Your task to perform on an android device: change the clock display to show seconds Image 0: 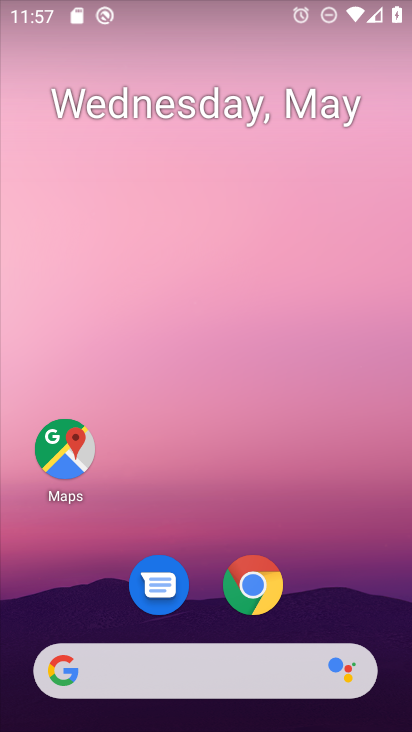
Step 0: drag from (216, 495) to (198, 23)
Your task to perform on an android device: change the clock display to show seconds Image 1: 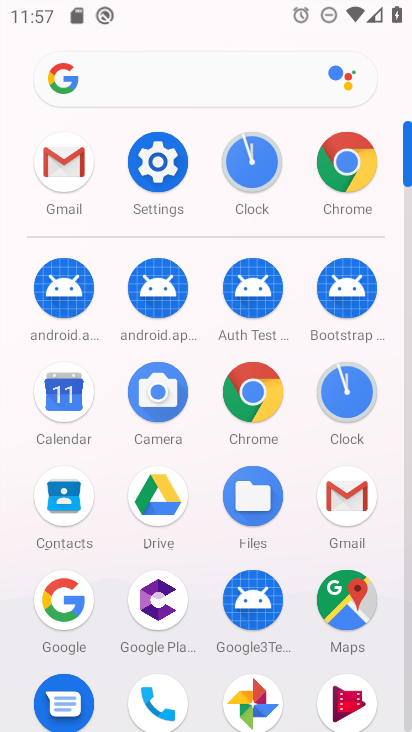
Step 1: click (253, 173)
Your task to perform on an android device: change the clock display to show seconds Image 2: 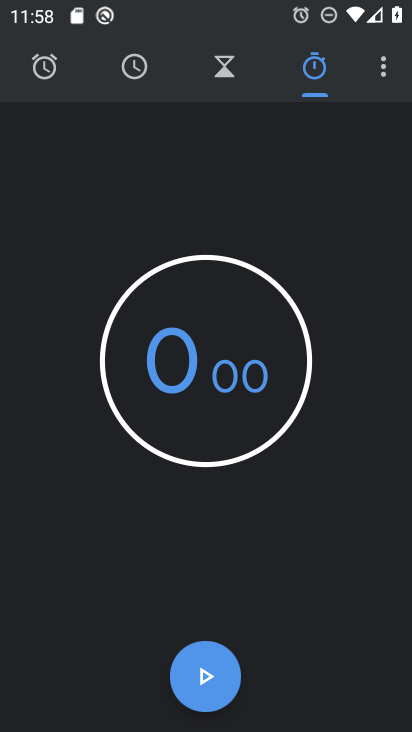
Step 2: click (382, 72)
Your task to perform on an android device: change the clock display to show seconds Image 3: 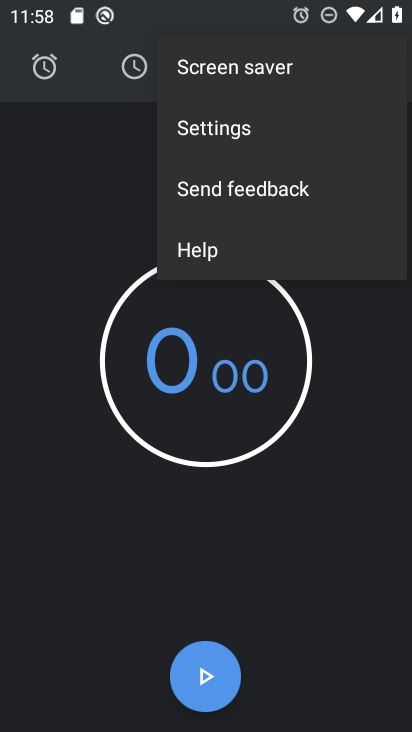
Step 3: click (265, 127)
Your task to perform on an android device: change the clock display to show seconds Image 4: 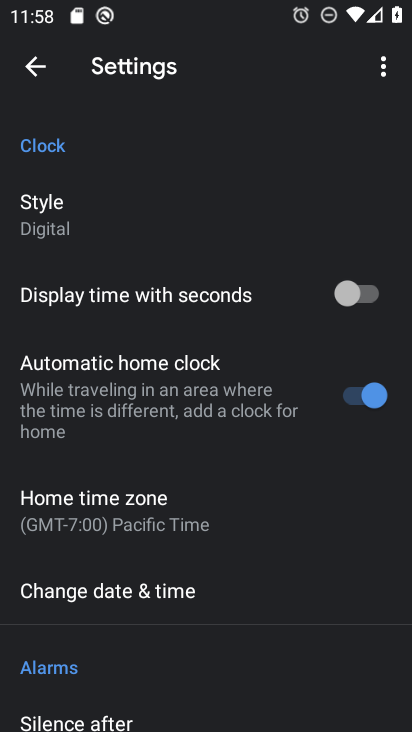
Step 4: click (366, 296)
Your task to perform on an android device: change the clock display to show seconds Image 5: 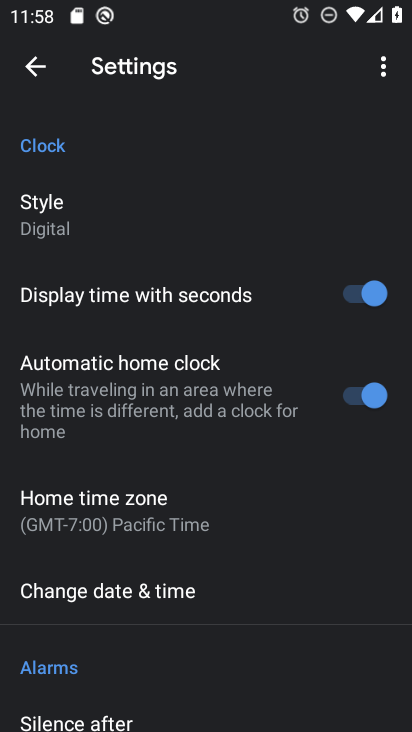
Step 5: task complete